Your task to perform on an android device: Go to ESPN.com Image 0: 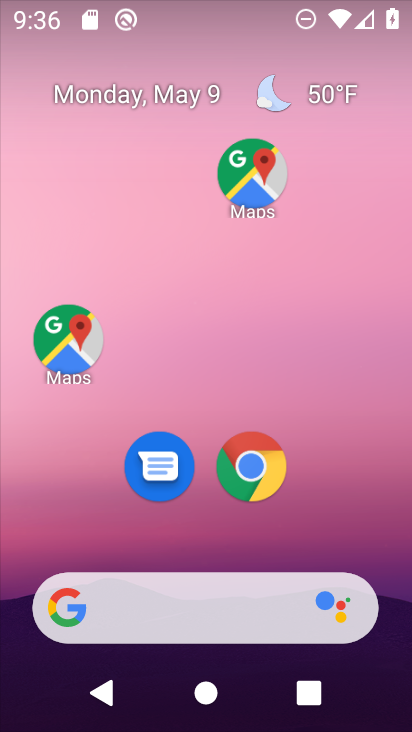
Step 0: click (242, 478)
Your task to perform on an android device: Go to ESPN.com Image 1: 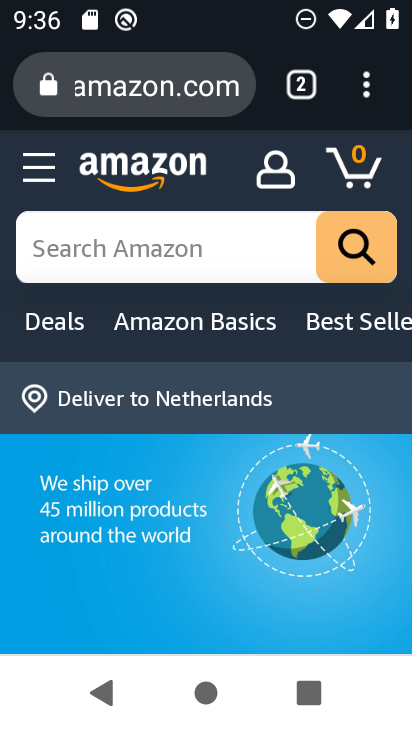
Step 1: click (158, 74)
Your task to perform on an android device: Go to ESPN.com Image 2: 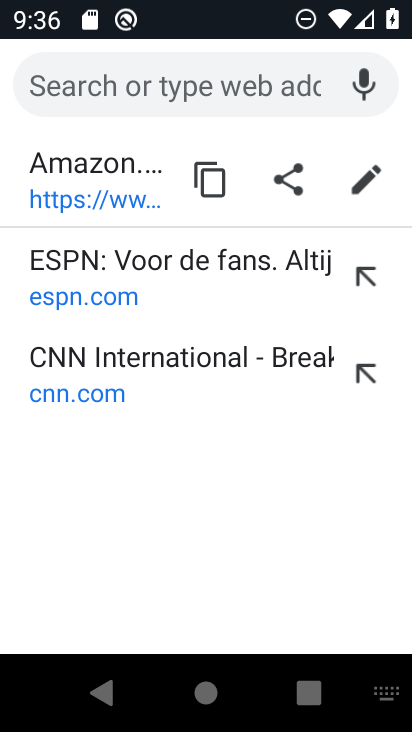
Step 2: type "ESPN.com"
Your task to perform on an android device: Go to ESPN.com Image 3: 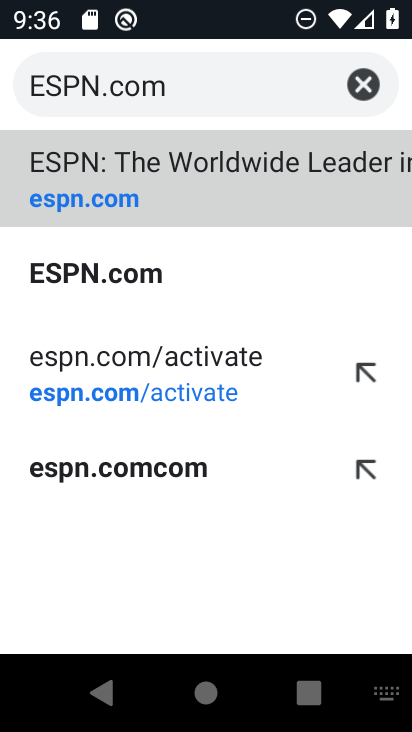
Step 3: click (300, 179)
Your task to perform on an android device: Go to ESPN.com Image 4: 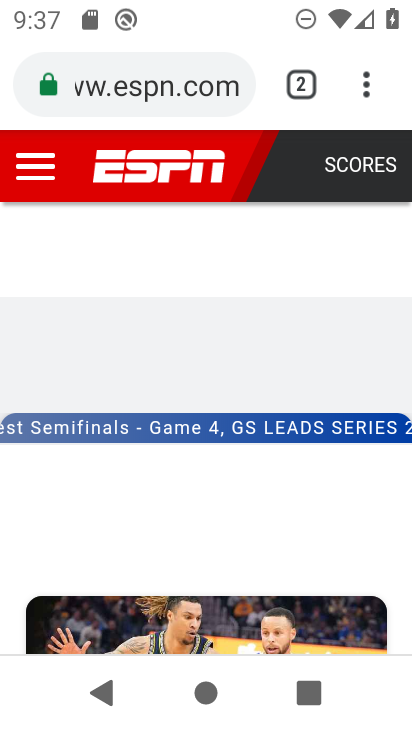
Step 4: task complete